Your task to perform on an android device: open the mobile data screen to see how much data has been used Image 0: 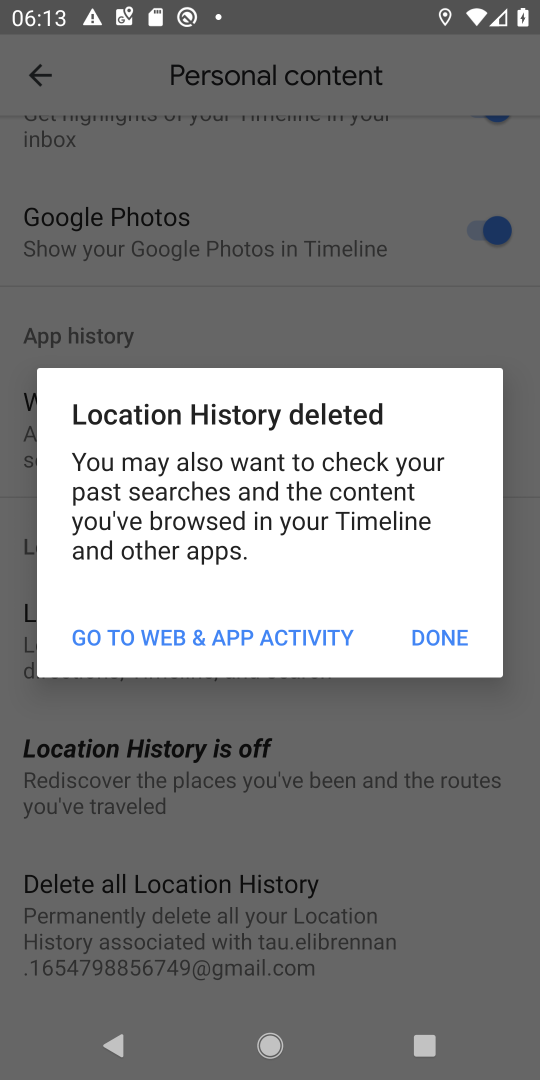
Step 0: press home button
Your task to perform on an android device: open the mobile data screen to see how much data has been used Image 1: 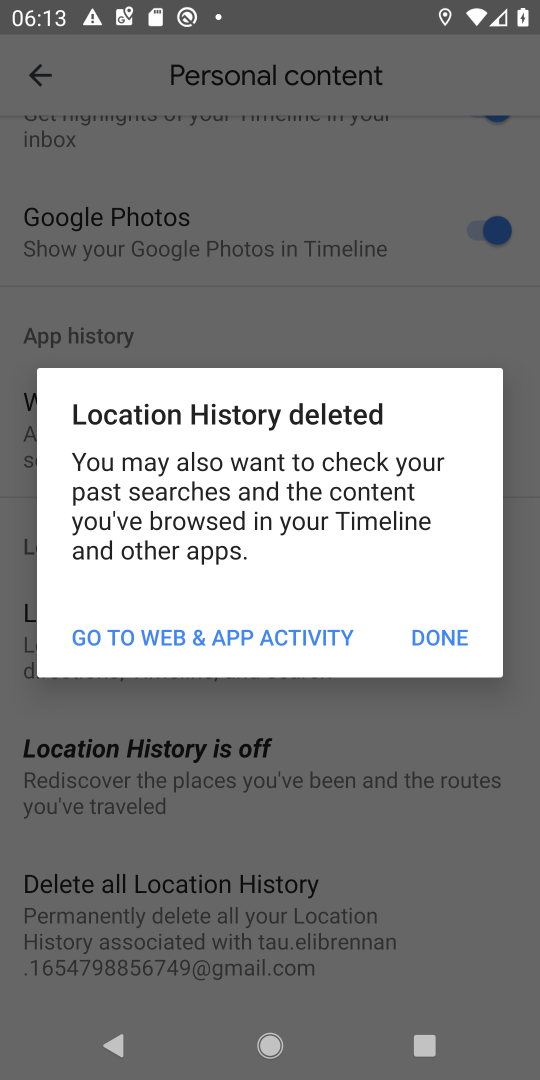
Step 1: press home button
Your task to perform on an android device: open the mobile data screen to see how much data has been used Image 2: 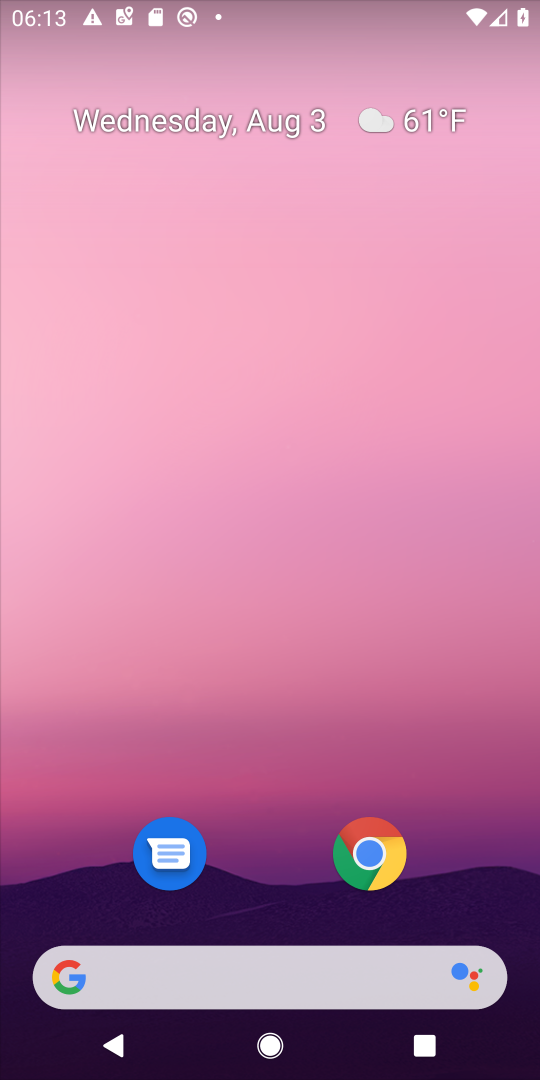
Step 2: drag from (267, 904) to (263, 119)
Your task to perform on an android device: open the mobile data screen to see how much data has been used Image 3: 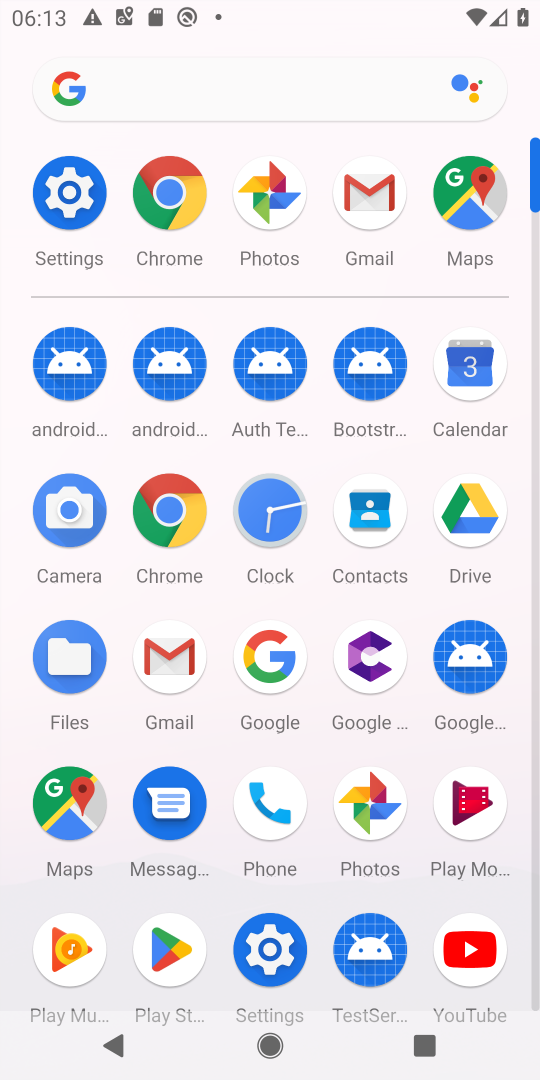
Step 3: click (51, 188)
Your task to perform on an android device: open the mobile data screen to see how much data has been used Image 4: 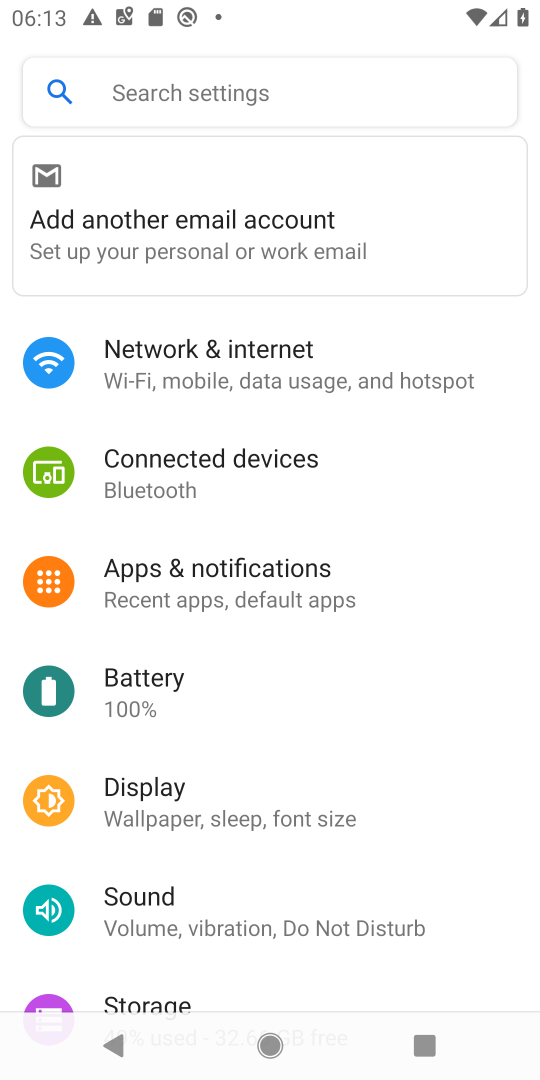
Step 4: click (202, 341)
Your task to perform on an android device: open the mobile data screen to see how much data has been used Image 5: 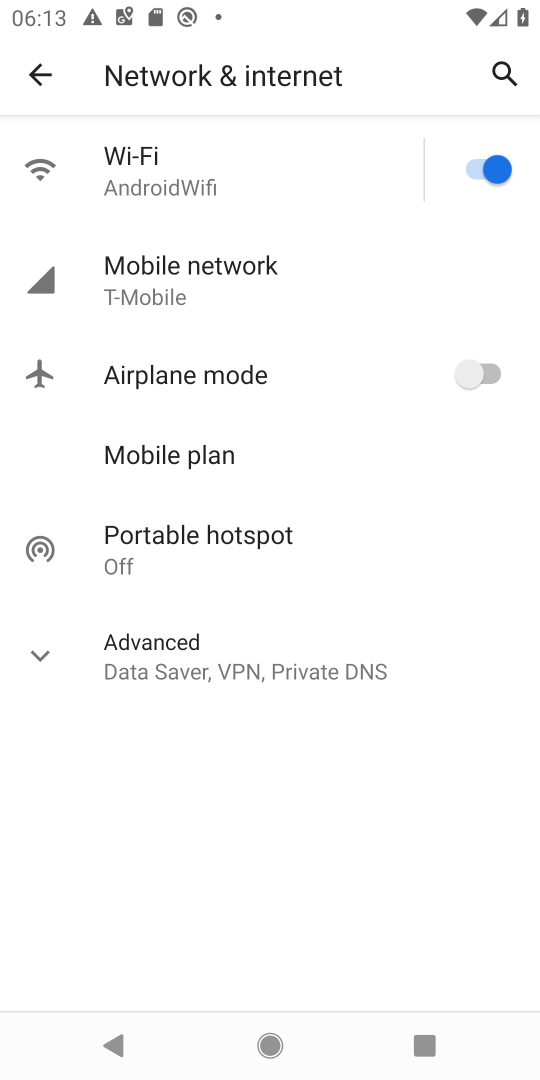
Step 5: click (158, 261)
Your task to perform on an android device: open the mobile data screen to see how much data has been used Image 6: 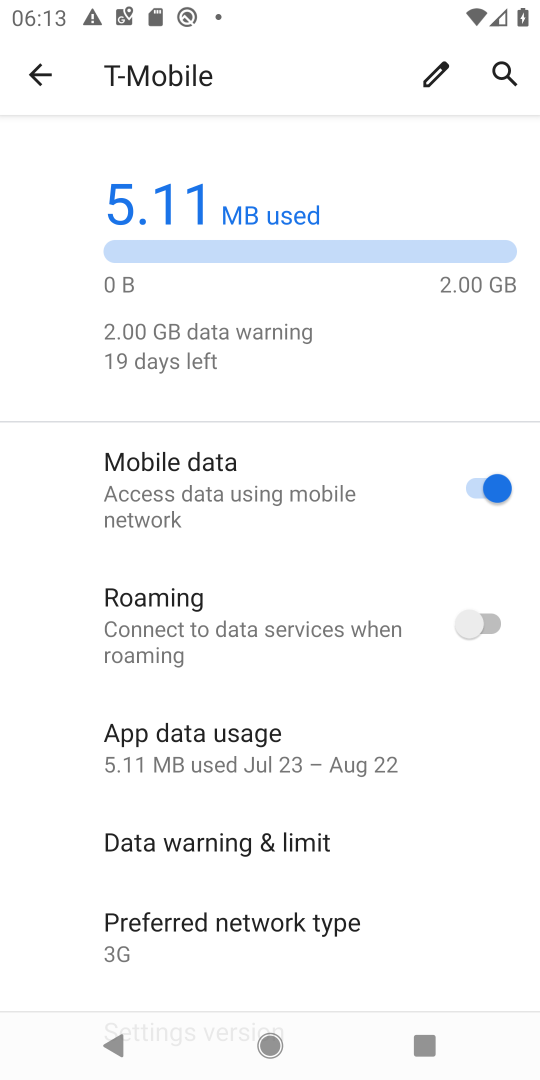
Step 6: click (190, 755)
Your task to perform on an android device: open the mobile data screen to see how much data has been used Image 7: 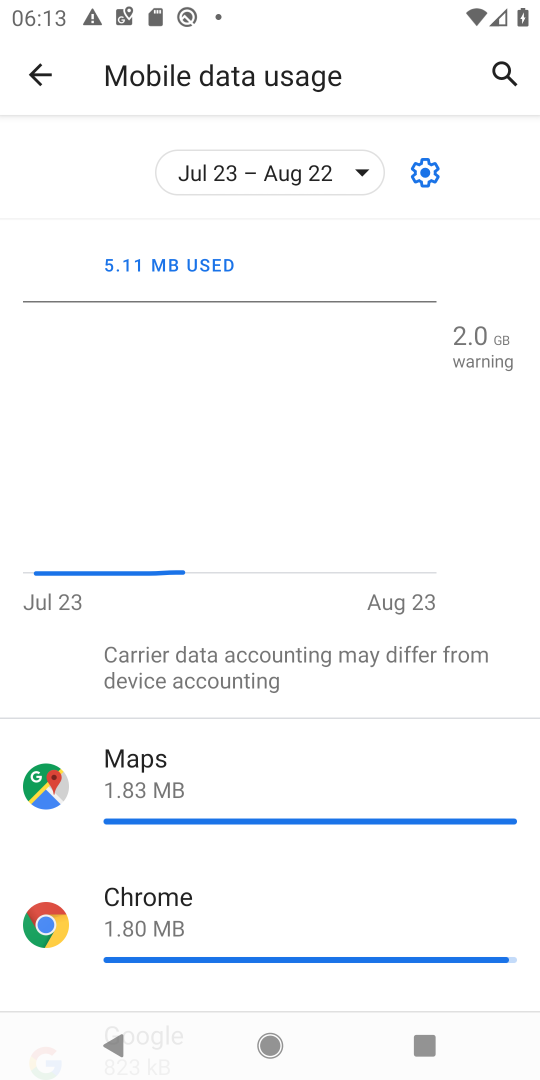
Step 7: task complete